Your task to perform on an android device: turn on airplane mode Image 0: 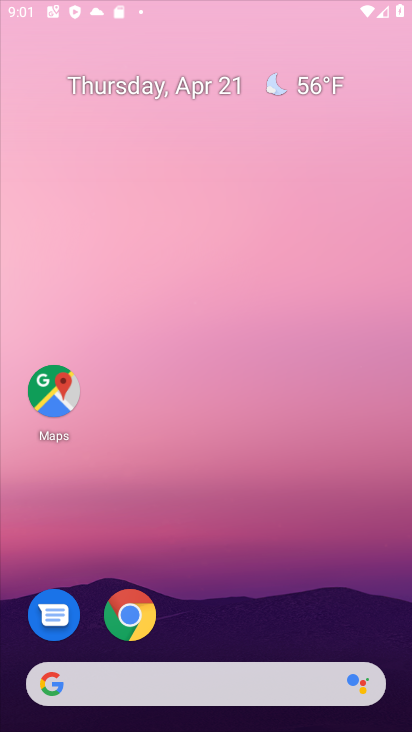
Step 0: click (223, 173)
Your task to perform on an android device: turn on airplane mode Image 1: 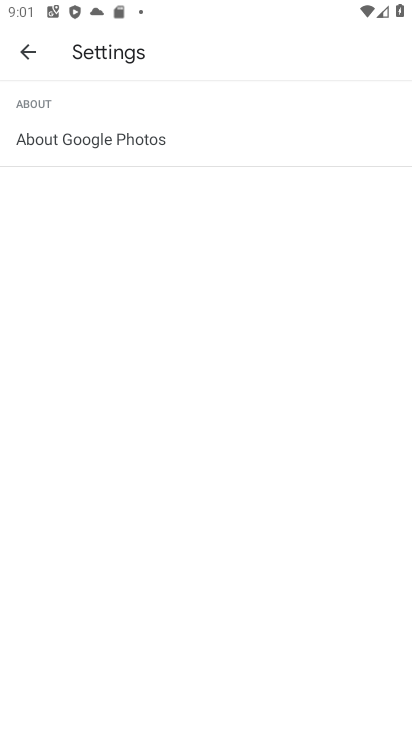
Step 1: click (21, 54)
Your task to perform on an android device: turn on airplane mode Image 2: 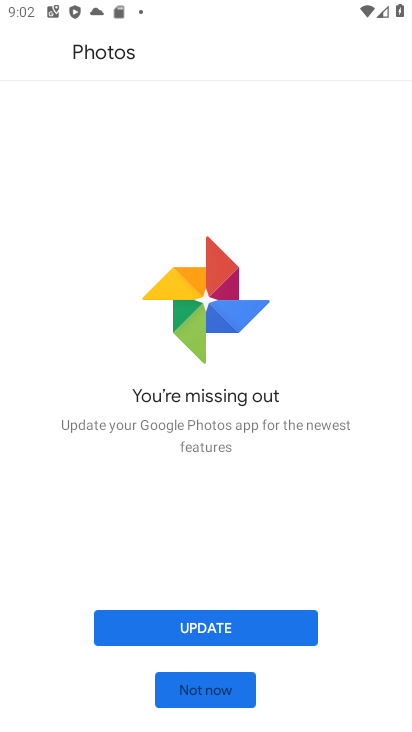
Step 2: click (193, 691)
Your task to perform on an android device: turn on airplane mode Image 3: 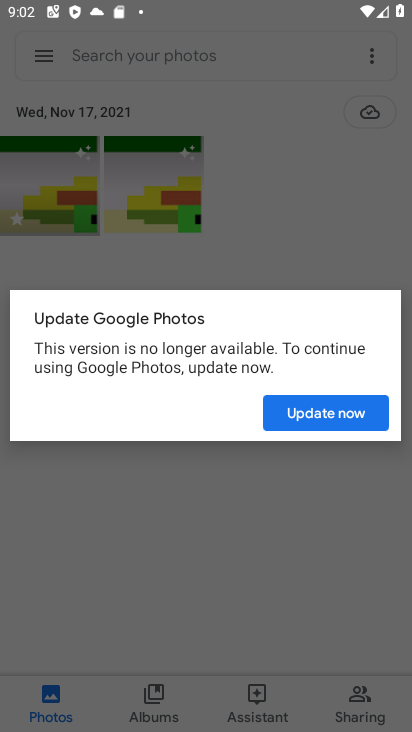
Step 3: click (260, 583)
Your task to perform on an android device: turn on airplane mode Image 4: 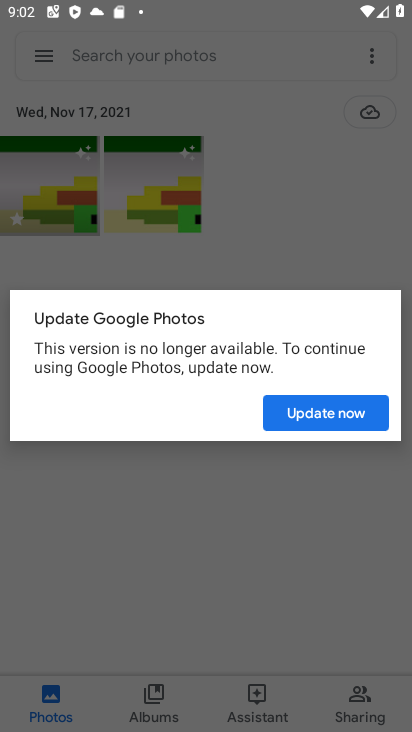
Step 4: press home button
Your task to perform on an android device: turn on airplane mode Image 5: 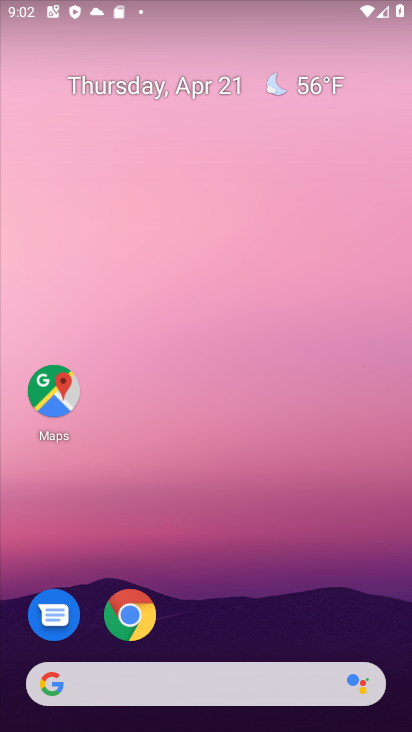
Step 5: drag from (303, 318) to (233, 208)
Your task to perform on an android device: turn on airplane mode Image 6: 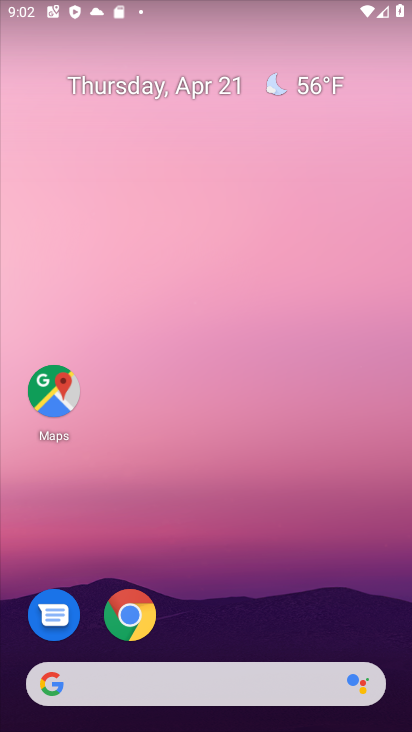
Step 6: drag from (248, 570) to (194, 187)
Your task to perform on an android device: turn on airplane mode Image 7: 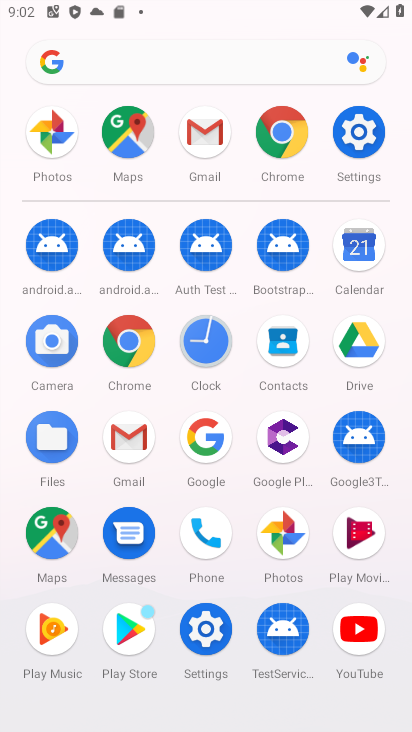
Step 7: click (358, 147)
Your task to perform on an android device: turn on airplane mode Image 8: 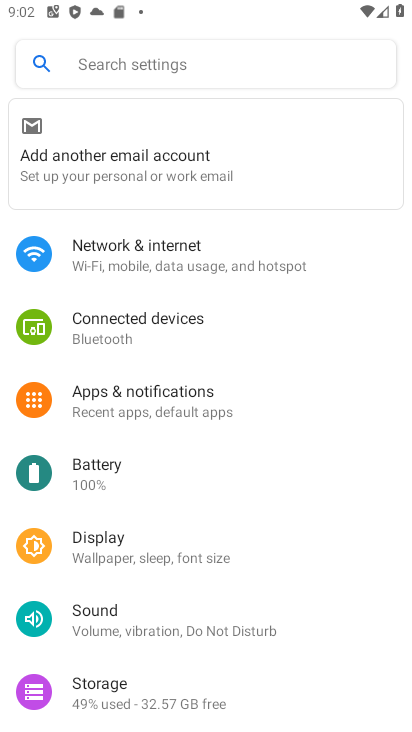
Step 8: drag from (213, 650) to (134, 329)
Your task to perform on an android device: turn on airplane mode Image 9: 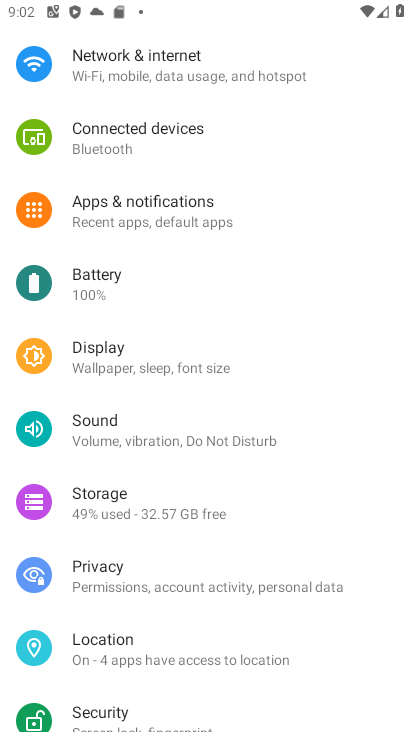
Step 9: click (146, 74)
Your task to perform on an android device: turn on airplane mode Image 10: 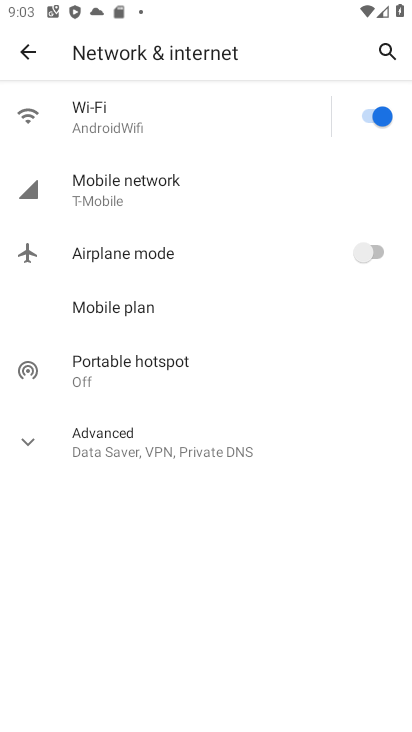
Step 10: click (394, 257)
Your task to perform on an android device: turn on airplane mode Image 11: 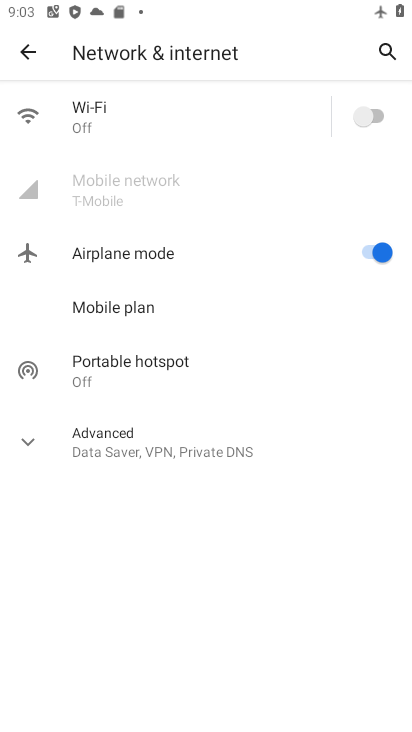
Step 11: task complete